Your task to perform on an android device: turn off picture-in-picture Image 0: 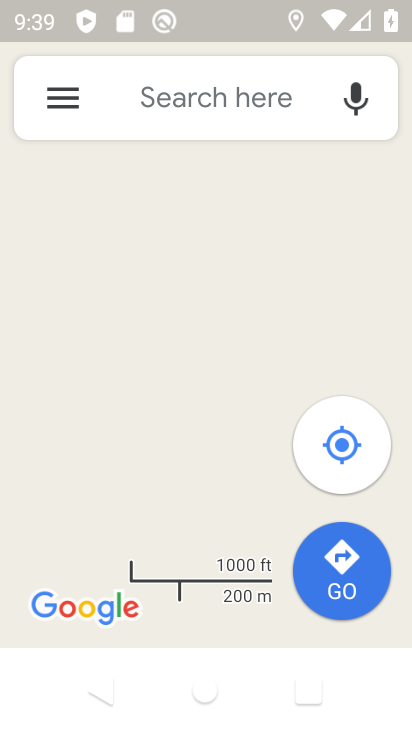
Step 0: press home button
Your task to perform on an android device: turn off picture-in-picture Image 1: 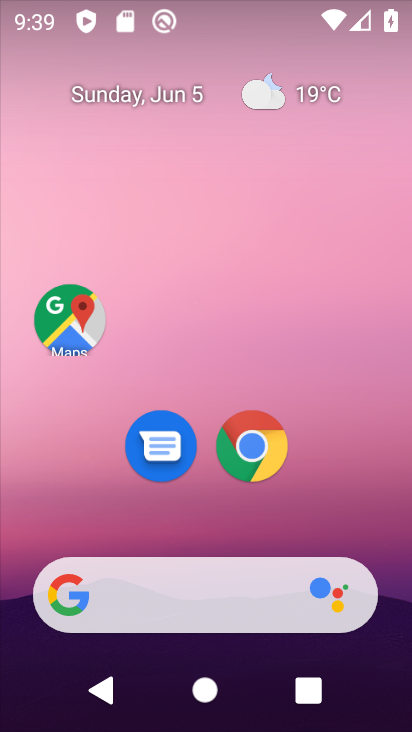
Step 1: click (261, 438)
Your task to perform on an android device: turn off picture-in-picture Image 2: 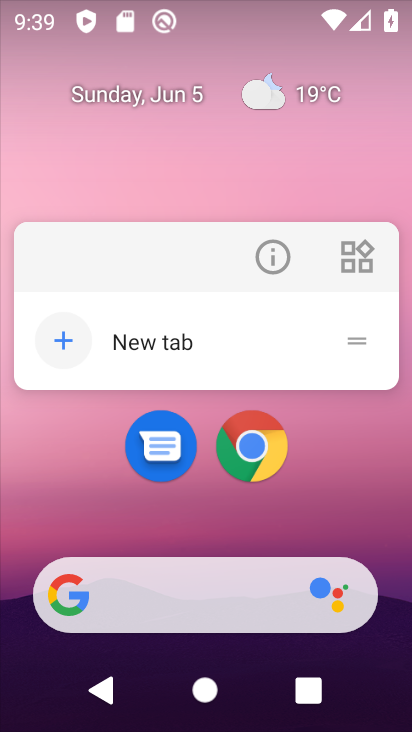
Step 2: click (273, 265)
Your task to perform on an android device: turn off picture-in-picture Image 3: 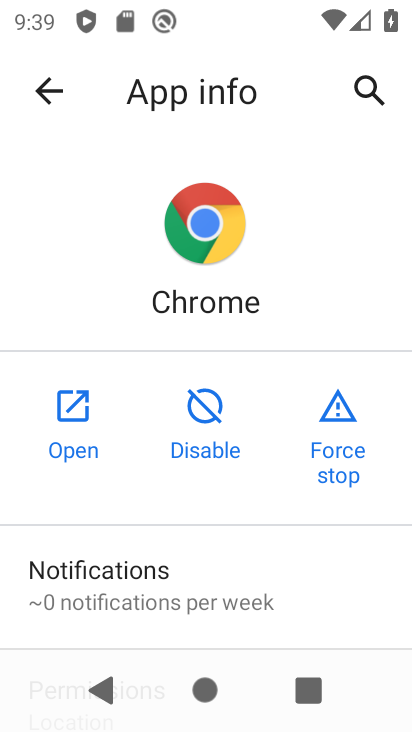
Step 3: drag from (251, 612) to (232, 303)
Your task to perform on an android device: turn off picture-in-picture Image 4: 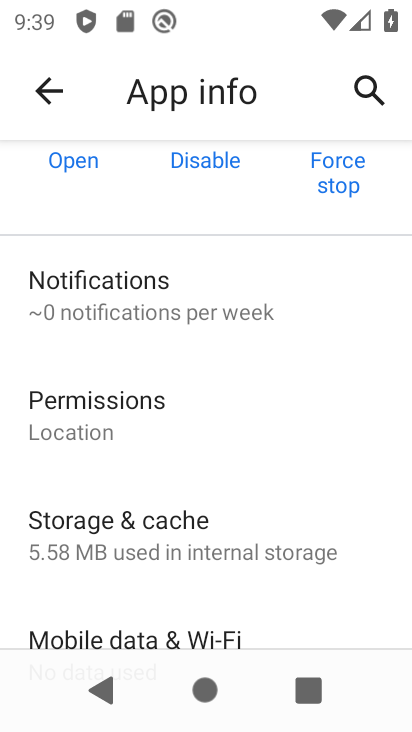
Step 4: drag from (185, 599) to (192, 98)
Your task to perform on an android device: turn off picture-in-picture Image 5: 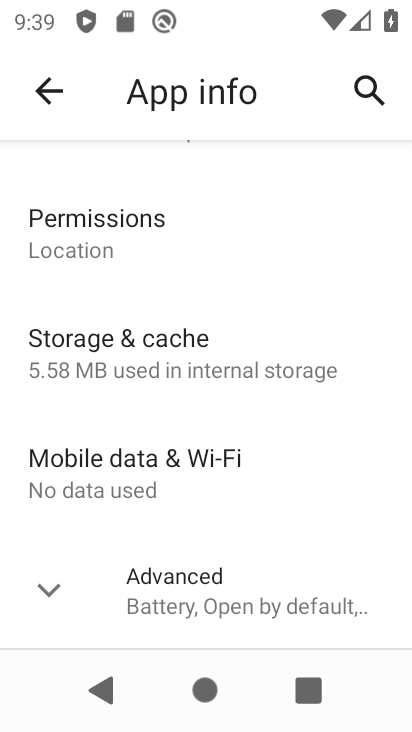
Step 5: click (181, 578)
Your task to perform on an android device: turn off picture-in-picture Image 6: 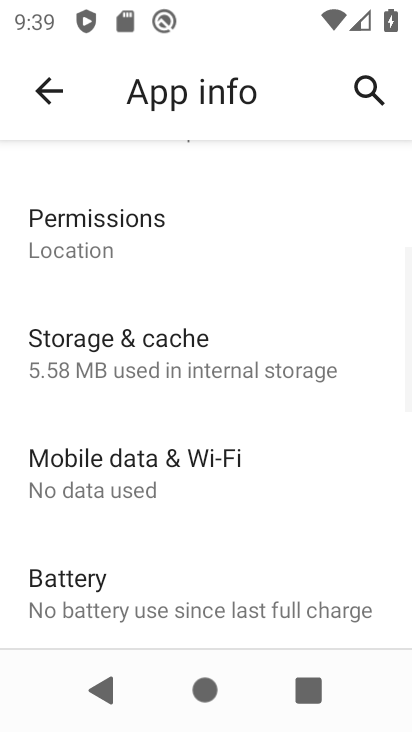
Step 6: drag from (232, 535) to (223, 179)
Your task to perform on an android device: turn off picture-in-picture Image 7: 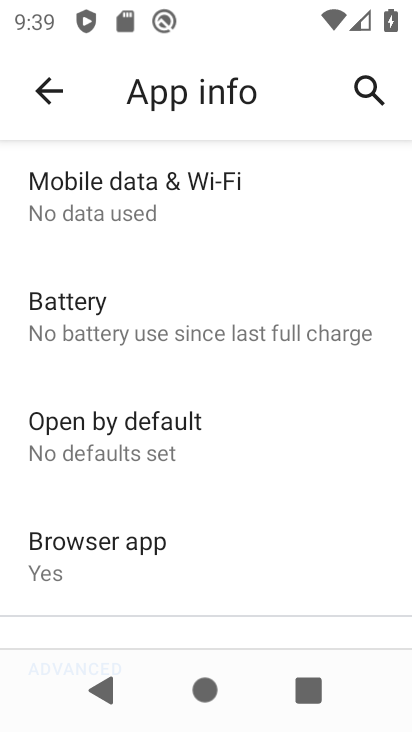
Step 7: drag from (208, 566) to (223, 258)
Your task to perform on an android device: turn off picture-in-picture Image 8: 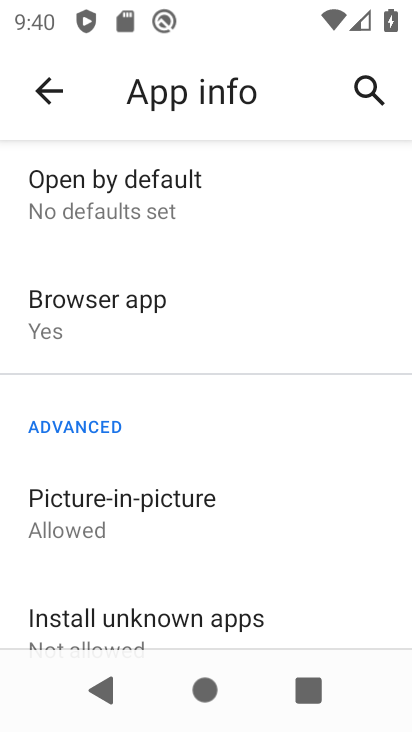
Step 8: click (197, 504)
Your task to perform on an android device: turn off picture-in-picture Image 9: 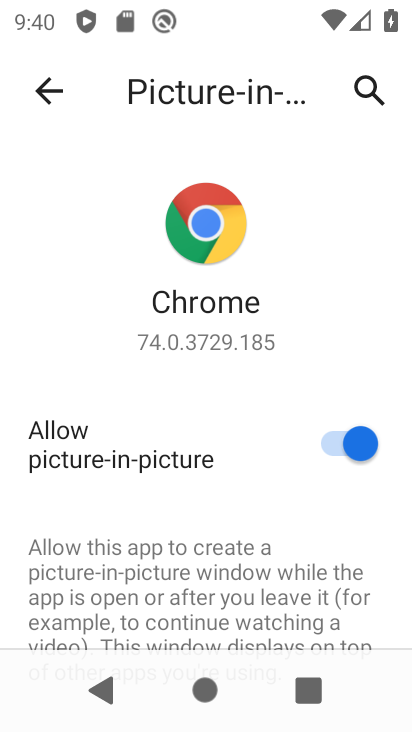
Step 9: click (330, 454)
Your task to perform on an android device: turn off picture-in-picture Image 10: 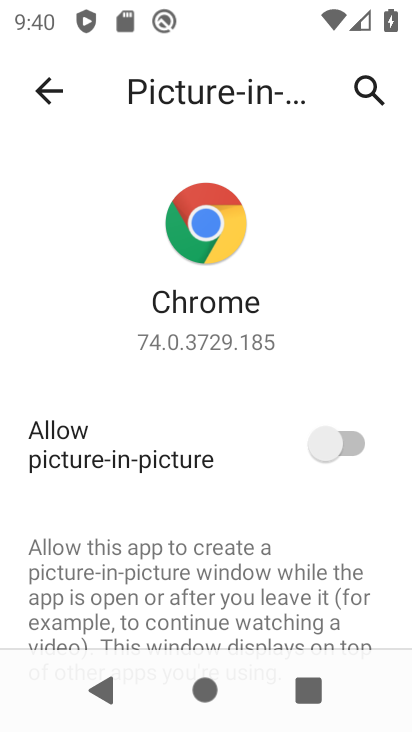
Step 10: task complete